Your task to perform on an android device: turn off sleep mode Image 0: 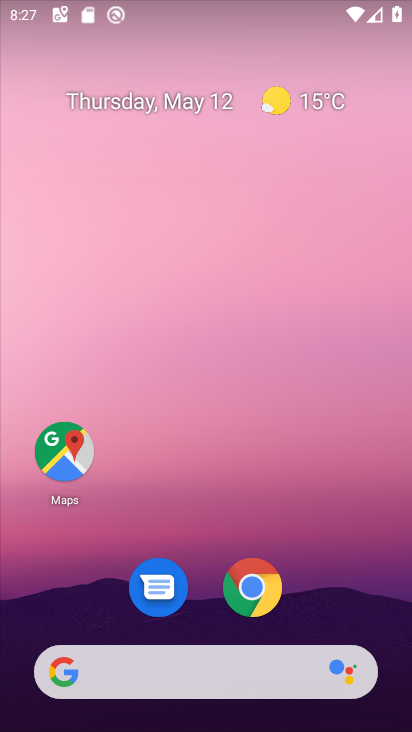
Step 0: drag from (388, 618) to (262, 9)
Your task to perform on an android device: turn off sleep mode Image 1: 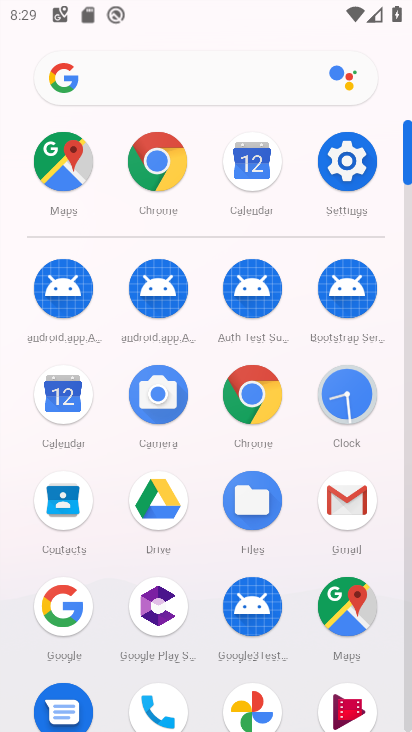
Step 1: click (359, 151)
Your task to perform on an android device: turn off sleep mode Image 2: 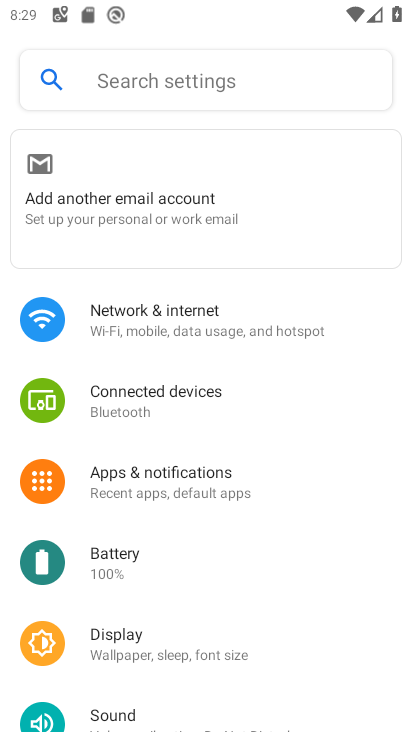
Step 2: task complete